Your task to perform on an android device: turn notification dots on Image 0: 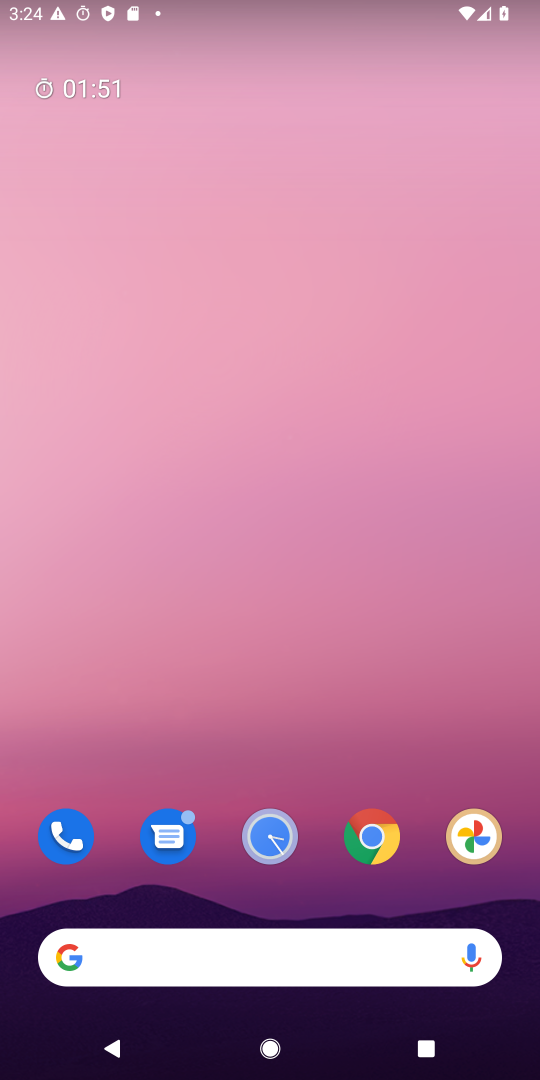
Step 0: drag from (280, 897) to (268, 78)
Your task to perform on an android device: turn notification dots on Image 1: 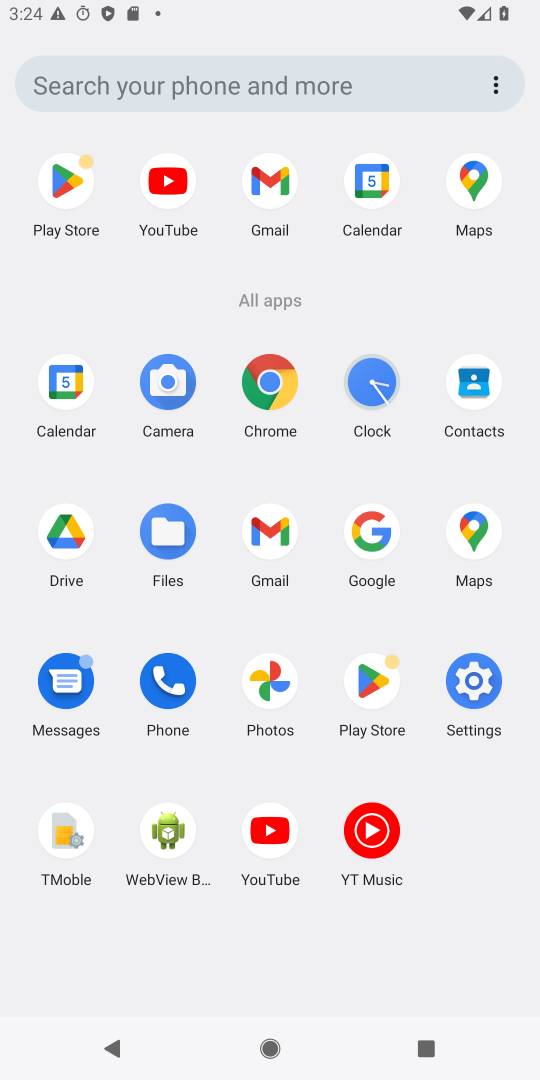
Step 1: click (468, 690)
Your task to perform on an android device: turn notification dots on Image 2: 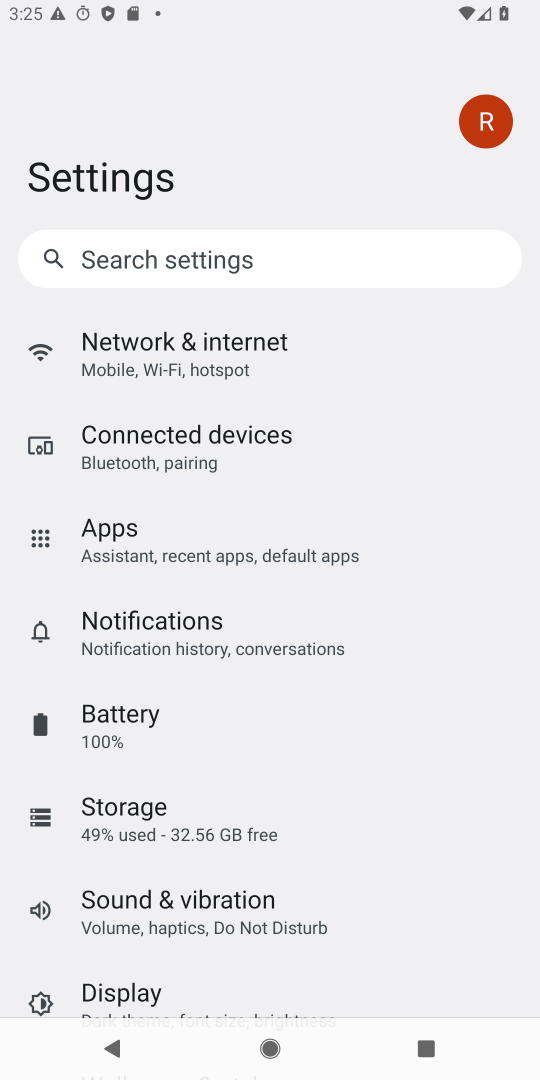
Step 2: click (230, 638)
Your task to perform on an android device: turn notification dots on Image 3: 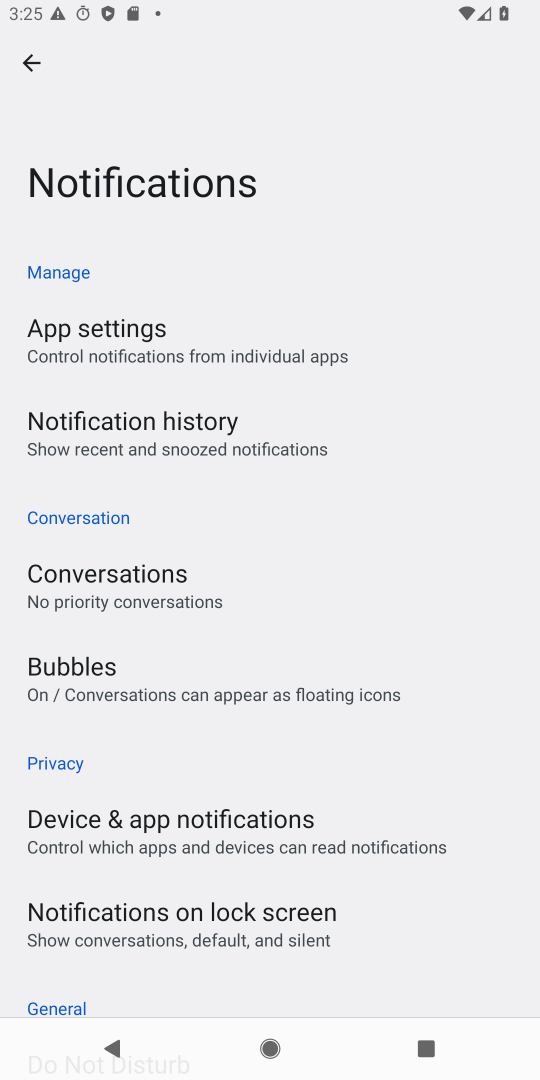
Step 3: task complete